Your task to perform on an android device: Show me popular videos on Youtube Image 0: 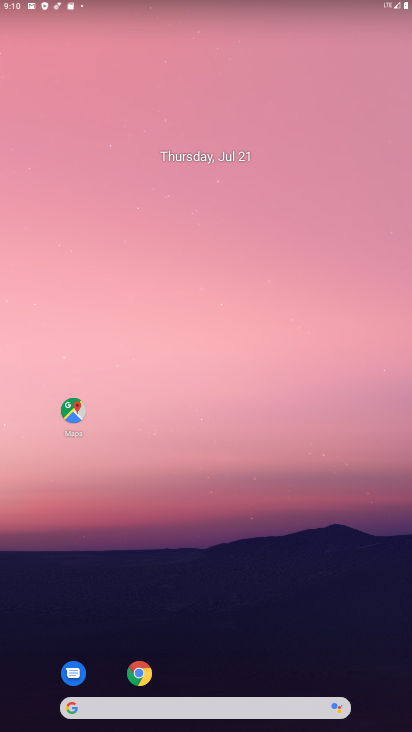
Step 0: click (233, 236)
Your task to perform on an android device: Show me popular videos on Youtube Image 1: 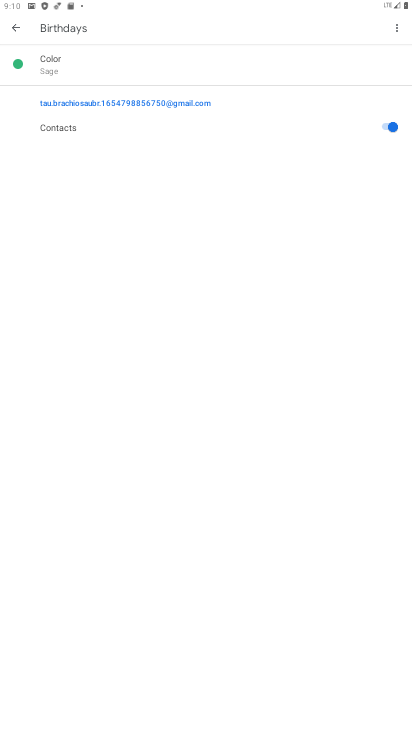
Step 1: drag from (233, 543) to (225, 221)
Your task to perform on an android device: Show me popular videos on Youtube Image 2: 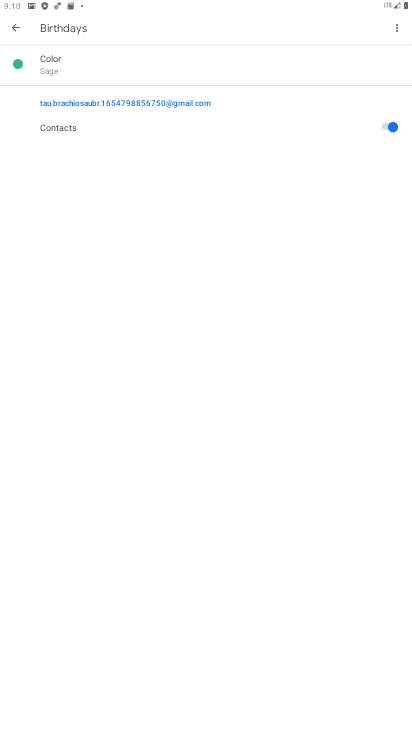
Step 2: drag from (258, 588) to (234, 434)
Your task to perform on an android device: Show me popular videos on Youtube Image 3: 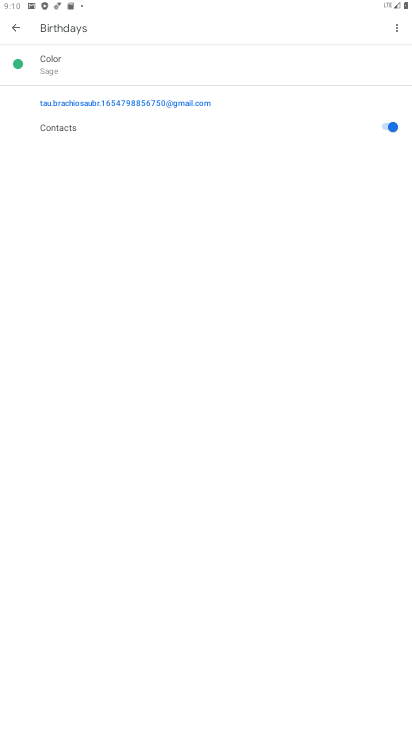
Step 3: press home button
Your task to perform on an android device: Show me popular videos on Youtube Image 4: 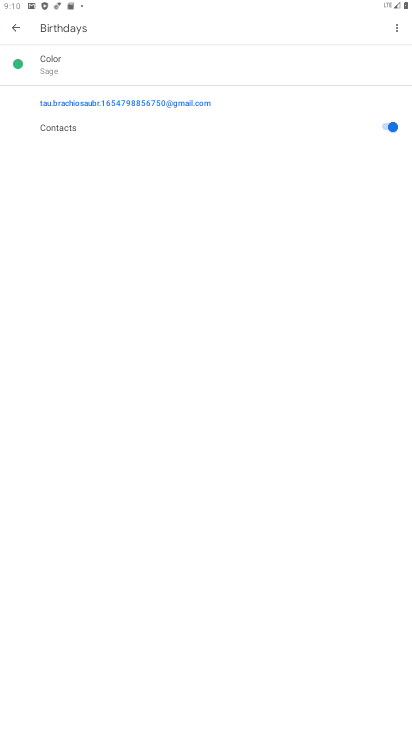
Step 4: press home button
Your task to perform on an android device: Show me popular videos on Youtube Image 5: 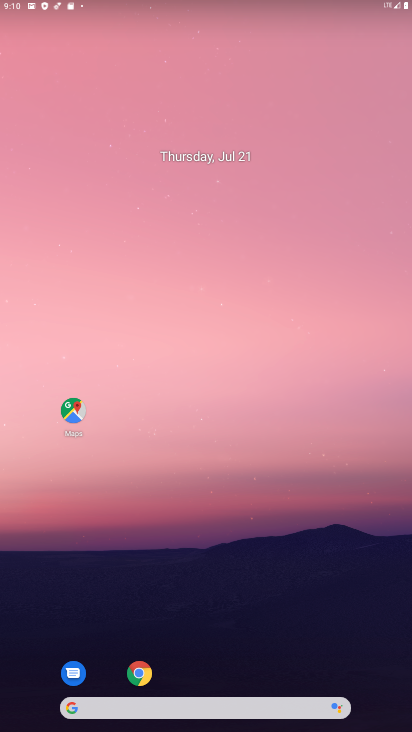
Step 5: drag from (279, 422) to (279, 84)
Your task to perform on an android device: Show me popular videos on Youtube Image 6: 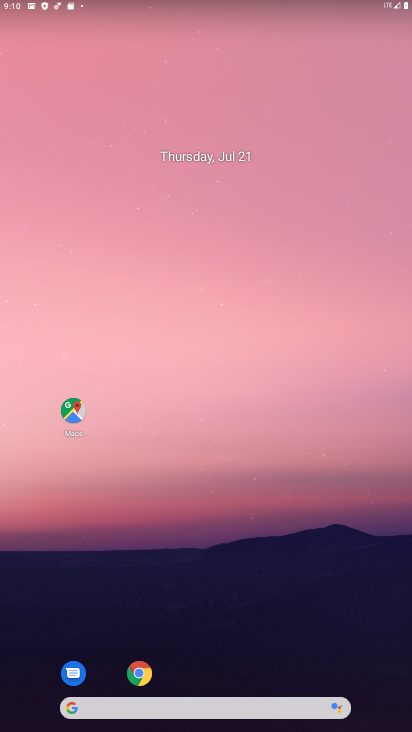
Step 6: drag from (166, 655) to (206, 142)
Your task to perform on an android device: Show me popular videos on Youtube Image 7: 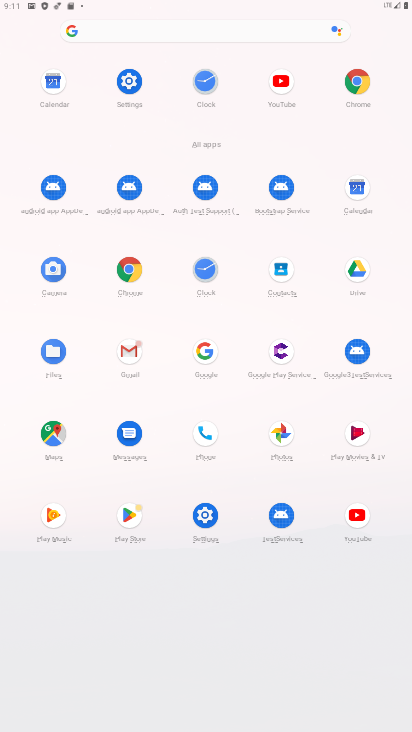
Step 7: click (351, 515)
Your task to perform on an android device: Show me popular videos on Youtube Image 8: 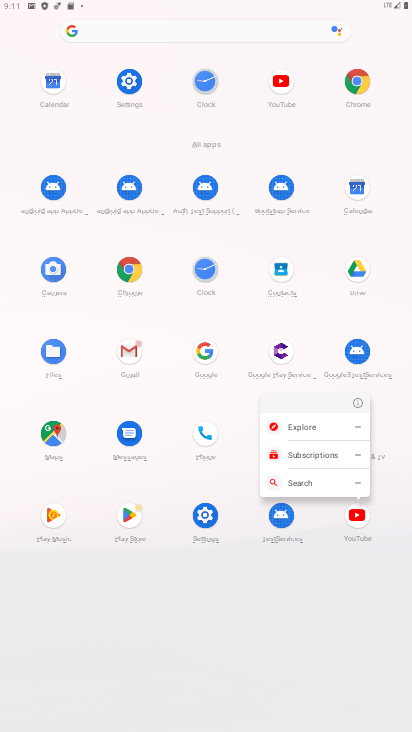
Step 8: click (358, 404)
Your task to perform on an android device: Show me popular videos on Youtube Image 9: 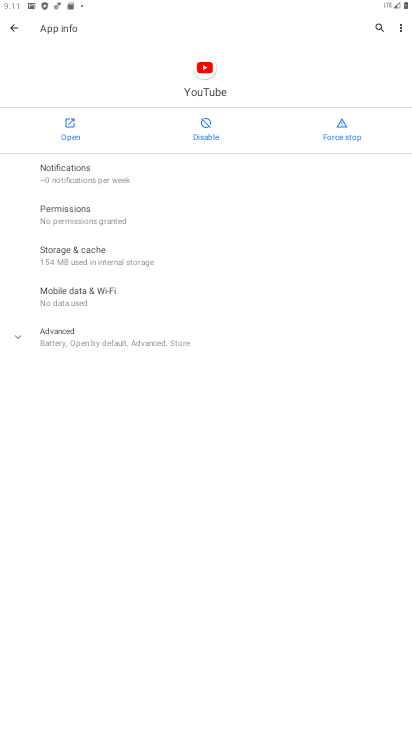
Step 9: click (75, 134)
Your task to perform on an android device: Show me popular videos on Youtube Image 10: 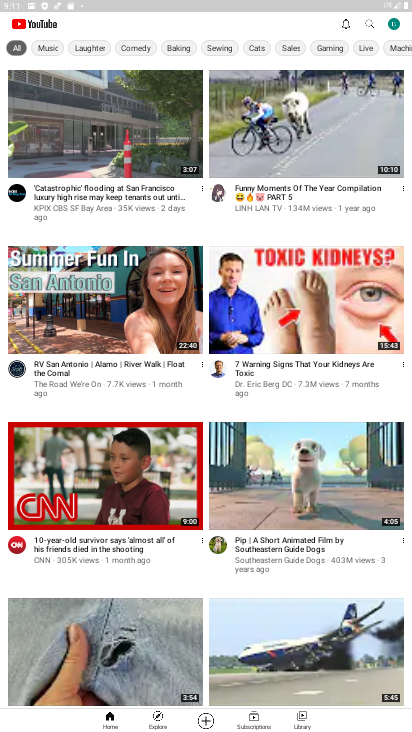
Step 10: task complete